Your task to perform on an android device: Show me productivity apps on the Play Store Image 0: 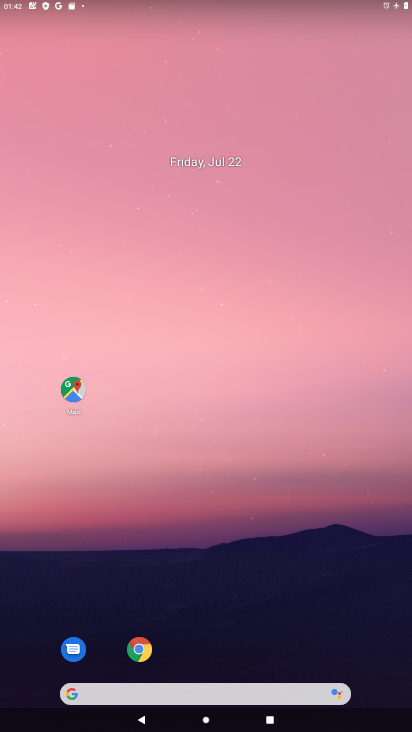
Step 0: drag from (334, 634) to (293, 94)
Your task to perform on an android device: Show me productivity apps on the Play Store Image 1: 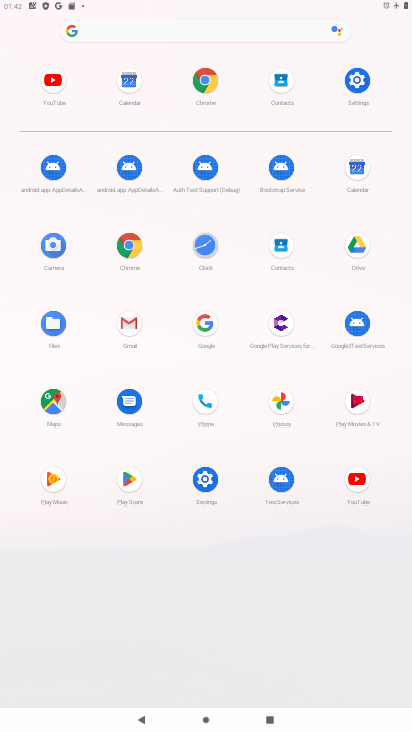
Step 1: click (128, 481)
Your task to perform on an android device: Show me productivity apps on the Play Store Image 2: 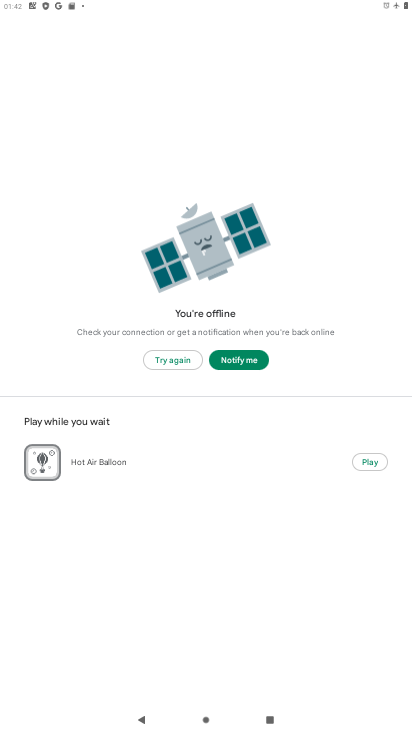
Step 2: task complete